Your task to perform on an android device: Is it going to rain tomorrow? Image 0: 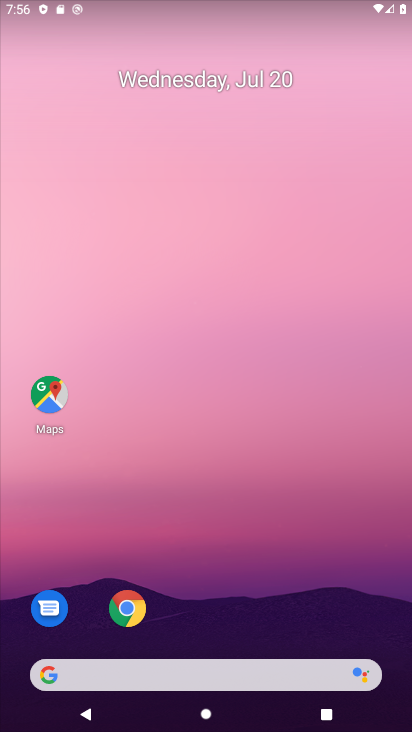
Step 0: click (183, 671)
Your task to perform on an android device: Is it going to rain tomorrow? Image 1: 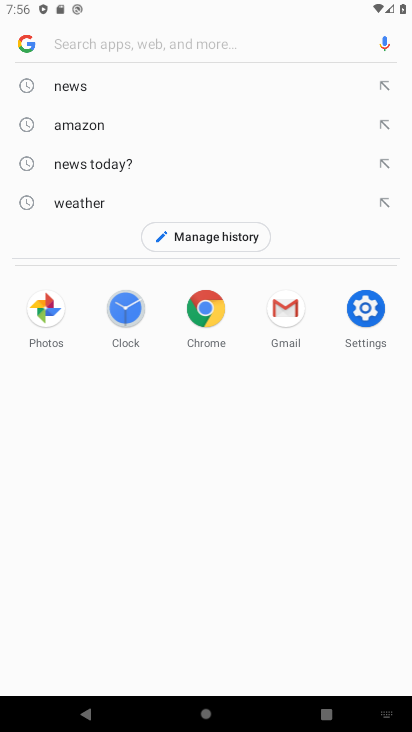
Step 1: click (90, 209)
Your task to perform on an android device: Is it going to rain tomorrow? Image 2: 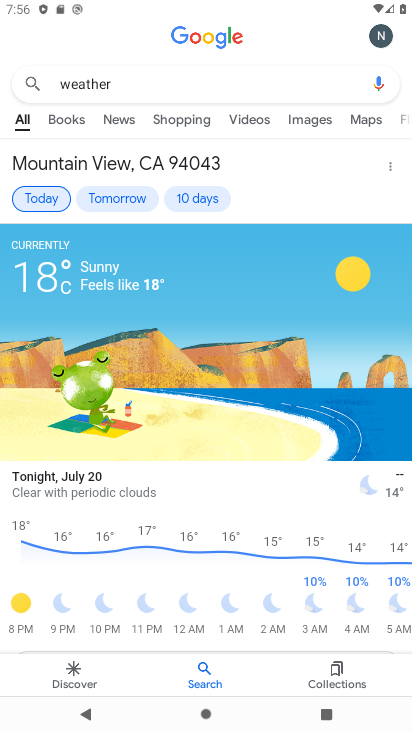
Step 2: click (118, 196)
Your task to perform on an android device: Is it going to rain tomorrow? Image 3: 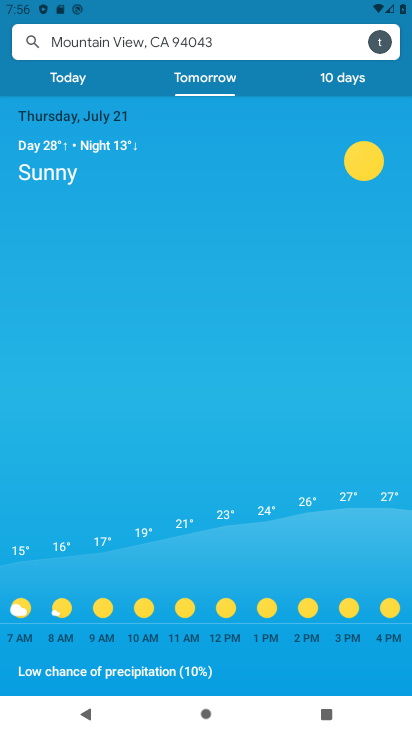
Step 3: task complete